Your task to perform on an android device: set the timer Image 0: 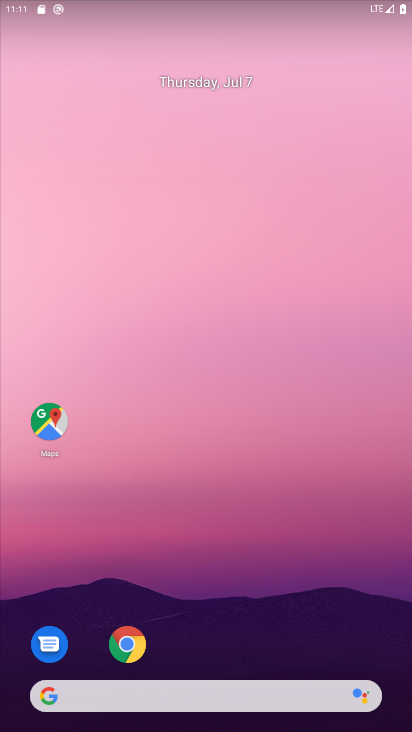
Step 0: drag from (41, 584) to (247, 19)
Your task to perform on an android device: set the timer Image 1: 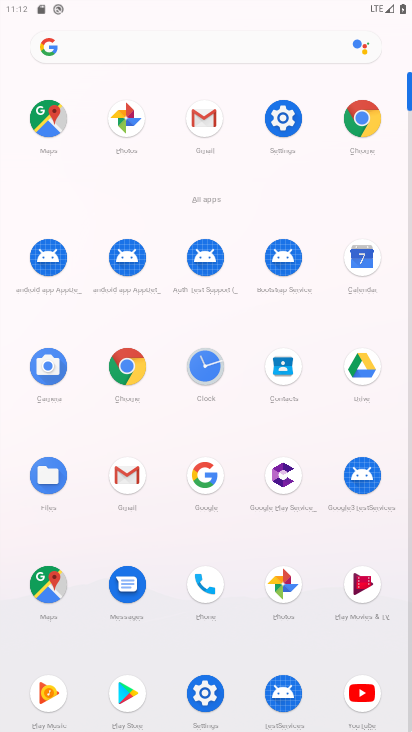
Step 1: click (196, 369)
Your task to perform on an android device: set the timer Image 2: 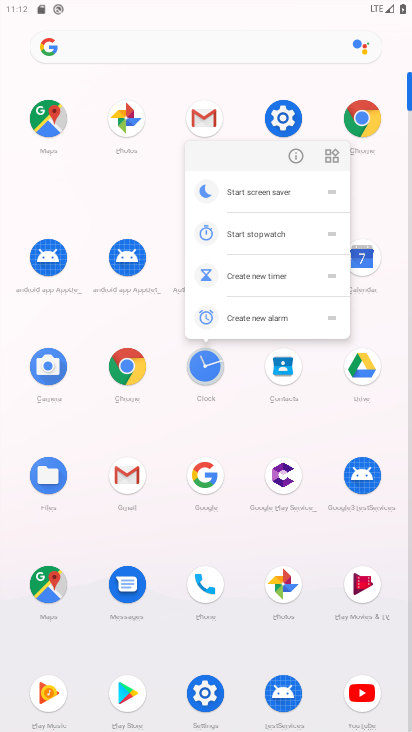
Step 2: click (204, 358)
Your task to perform on an android device: set the timer Image 3: 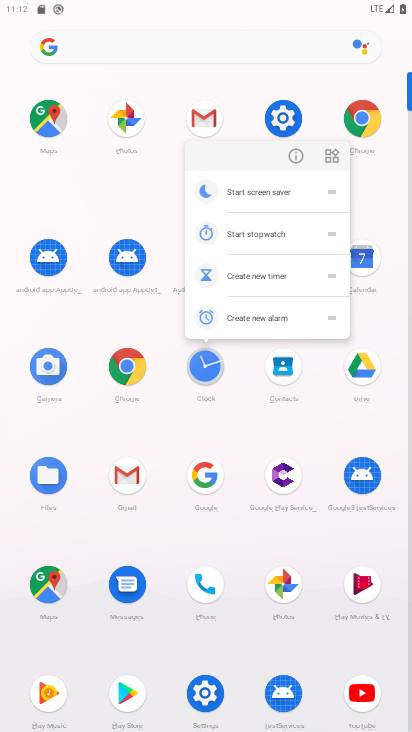
Step 3: click (204, 358)
Your task to perform on an android device: set the timer Image 4: 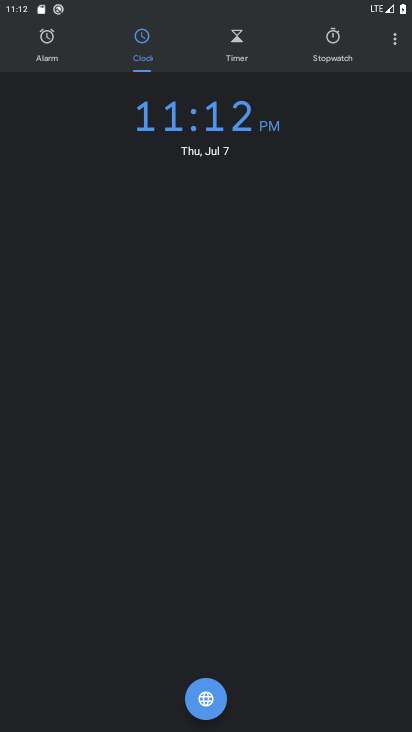
Step 4: click (246, 47)
Your task to perform on an android device: set the timer Image 5: 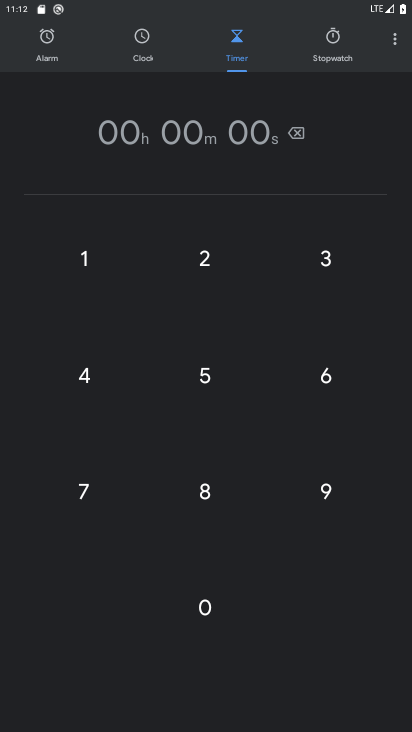
Step 5: click (203, 386)
Your task to perform on an android device: set the timer Image 6: 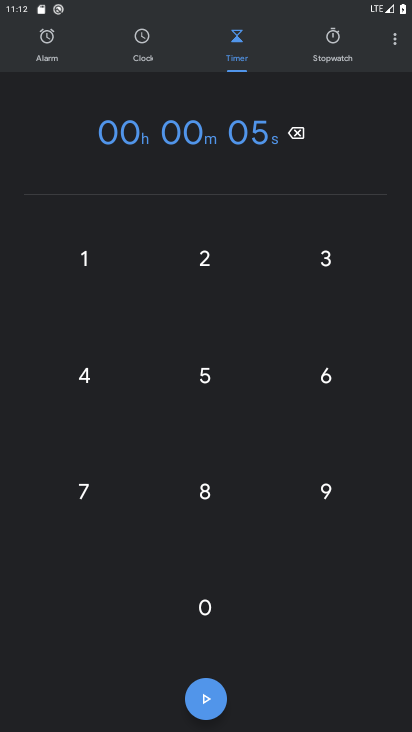
Step 6: click (200, 240)
Your task to perform on an android device: set the timer Image 7: 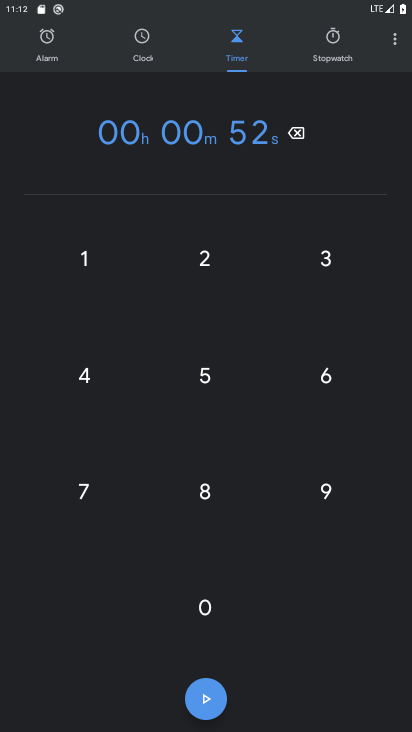
Step 7: click (129, 132)
Your task to perform on an android device: set the timer Image 8: 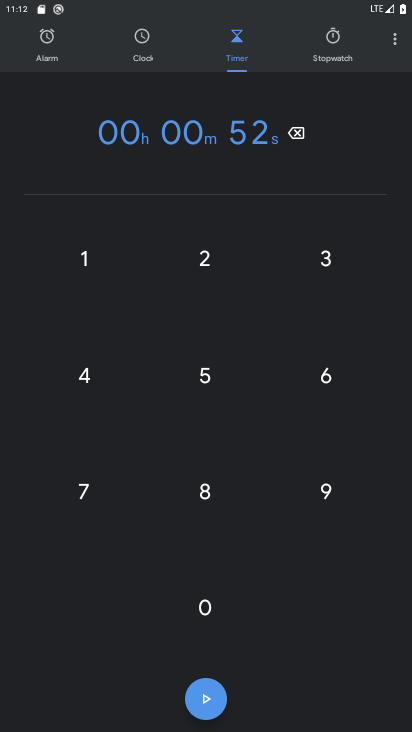
Step 8: click (94, 375)
Your task to perform on an android device: set the timer Image 9: 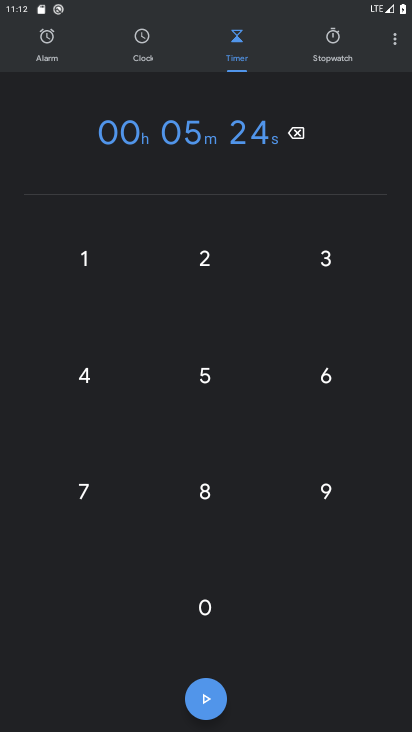
Step 9: task complete